Your task to perform on an android device: Open Google Chrome Image 0: 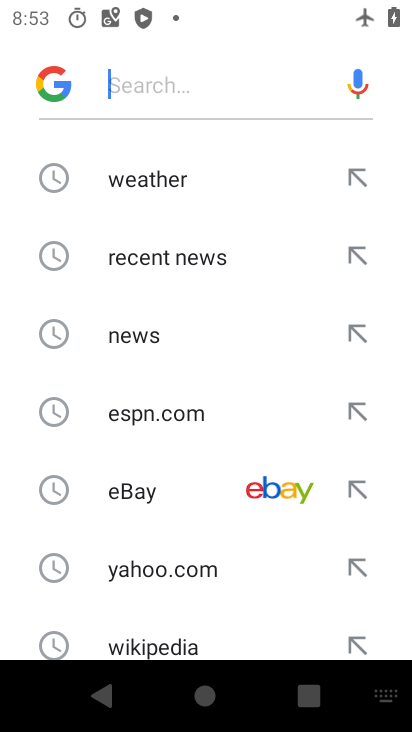
Step 0: press home button
Your task to perform on an android device: Open Google Chrome Image 1: 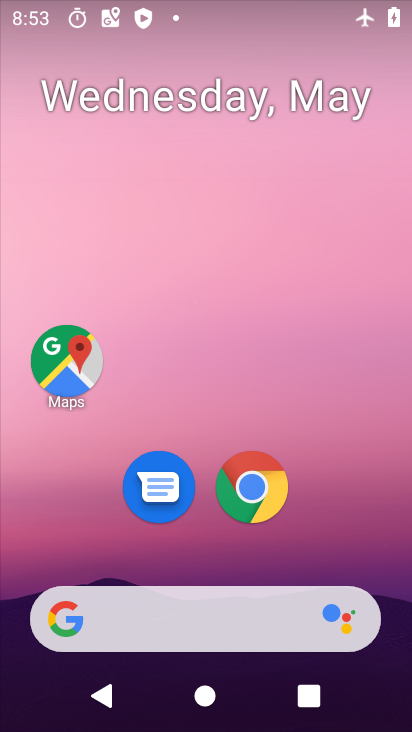
Step 1: click (245, 506)
Your task to perform on an android device: Open Google Chrome Image 2: 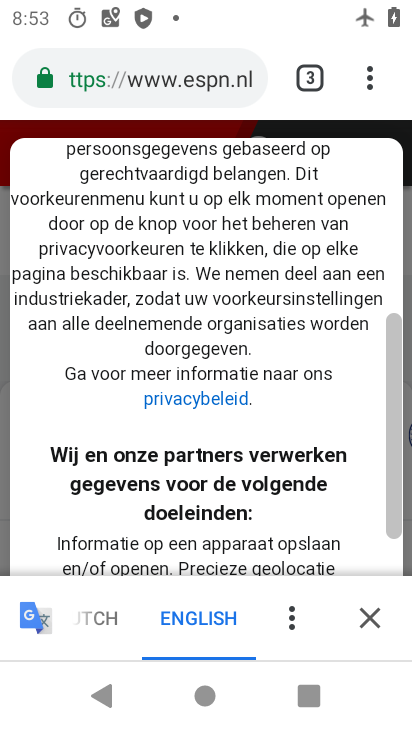
Step 2: task complete